Your task to perform on an android device: install app "Chime – Mobile Banking" Image 0: 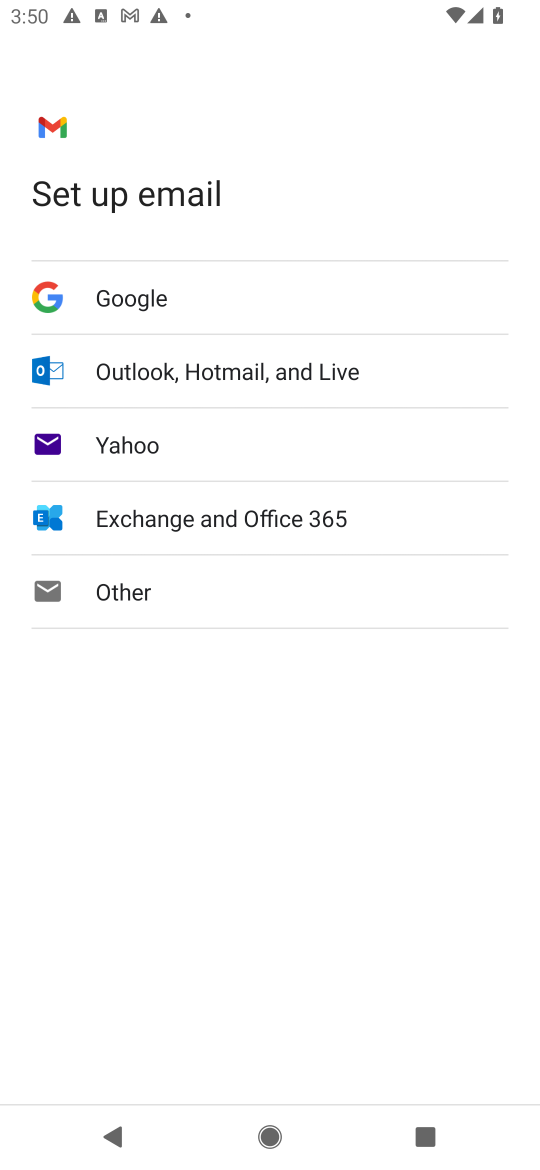
Step 0: press home button
Your task to perform on an android device: install app "Chime – Mobile Banking" Image 1: 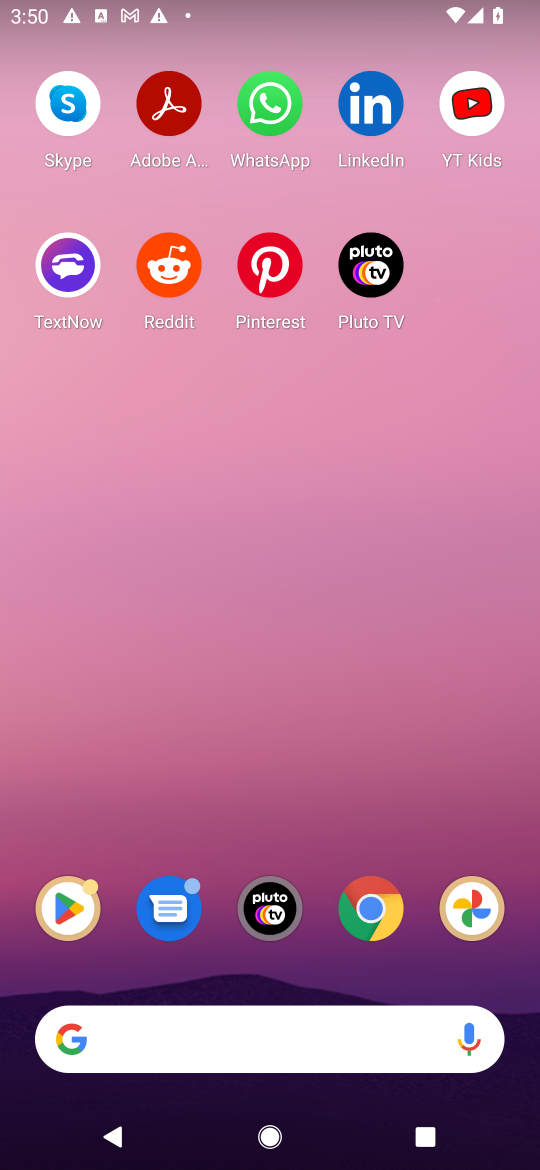
Step 1: click (76, 907)
Your task to perform on an android device: install app "Chime – Mobile Banking" Image 2: 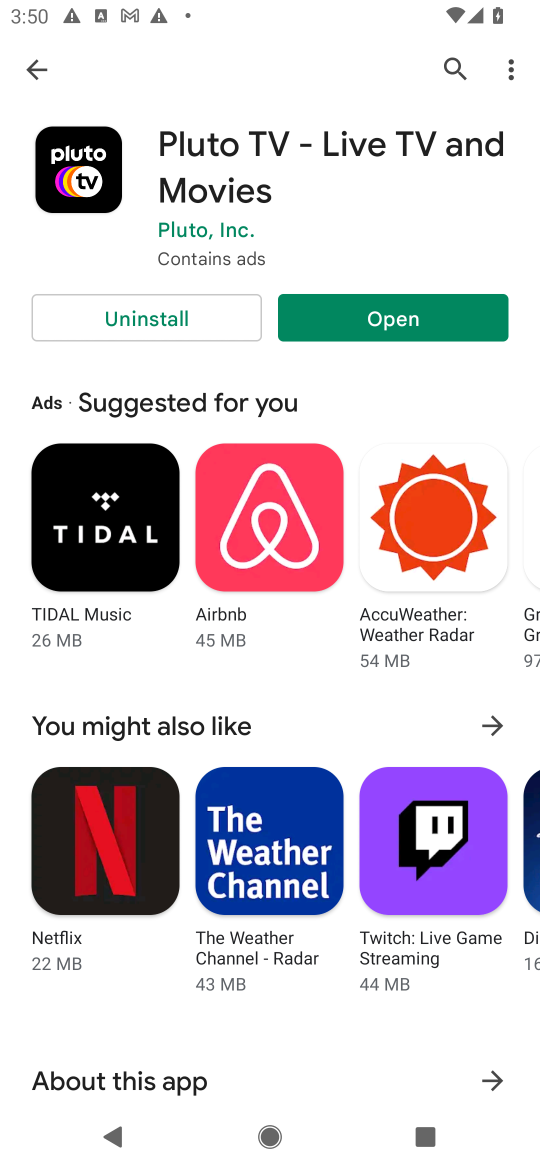
Step 2: click (458, 71)
Your task to perform on an android device: install app "Chime – Mobile Banking" Image 3: 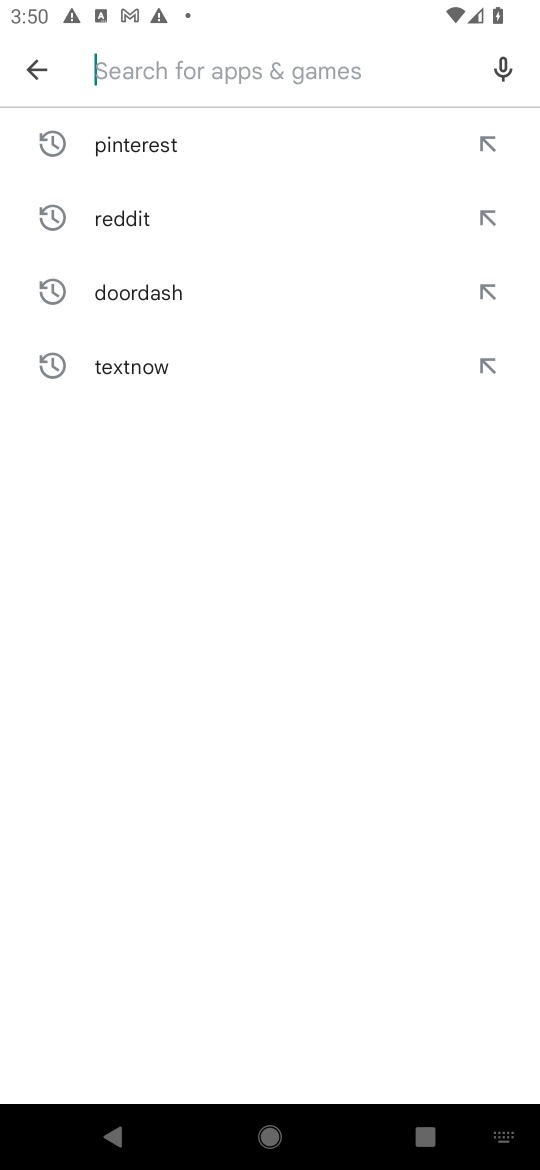
Step 3: type "chime - mobile banking"
Your task to perform on an android device: install app "Chime – Mobile Banking" Image 4: 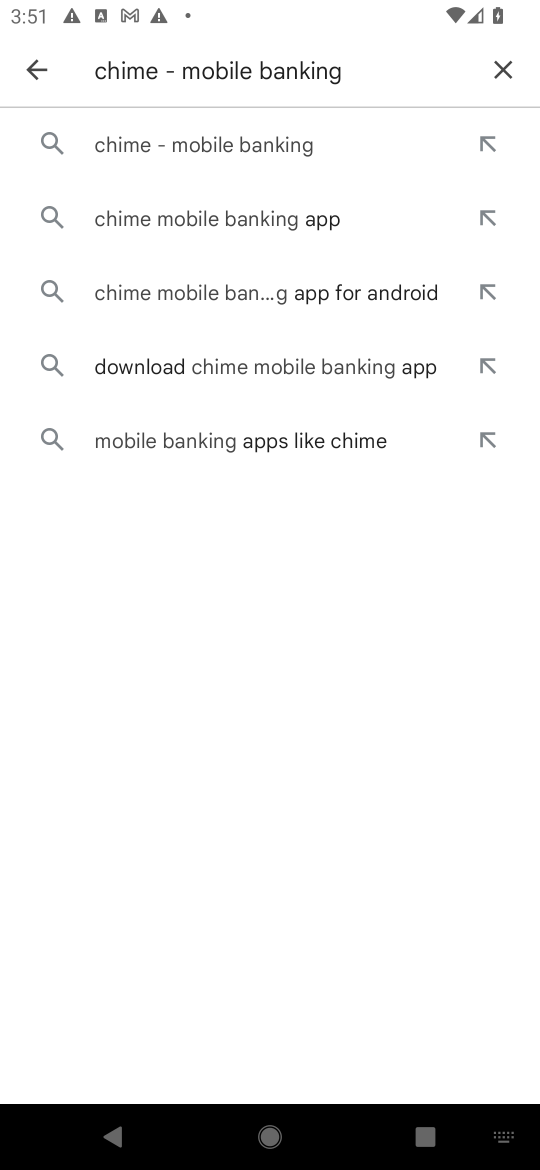
Step 4: click (312, 124)
Your task to perform on an android device: install app "Chime – Mobile Banking" Image 5: 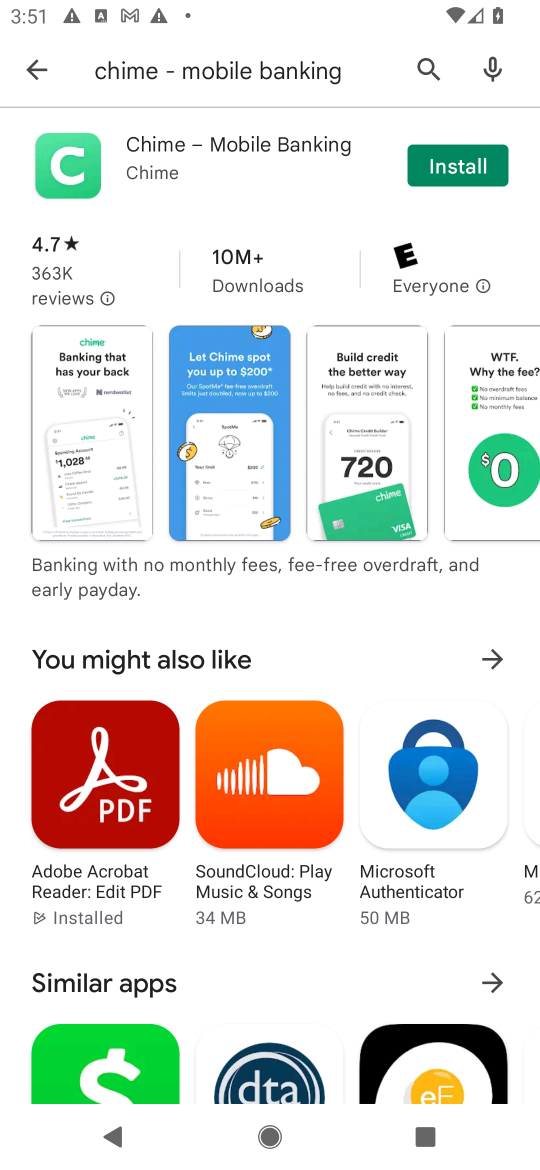
Step 5: click (472, 168)
Your task to perform on an android device: install app "Chime – Mobile Banking" Image 6: 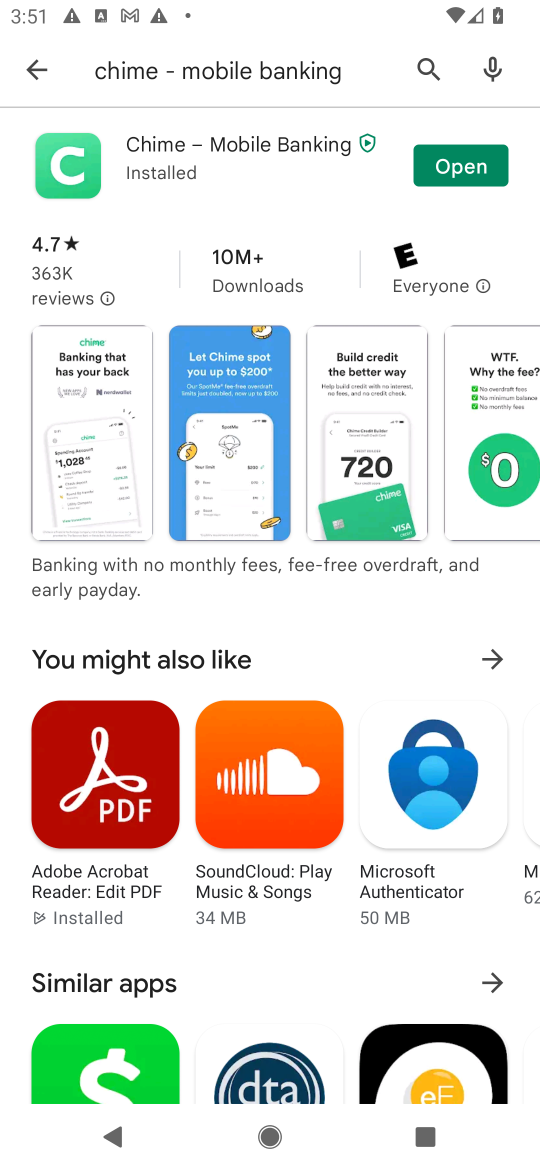
Step 6: task complete